Your task to perform on an android device: see tabs open on other devices in the chrome app Image 0: 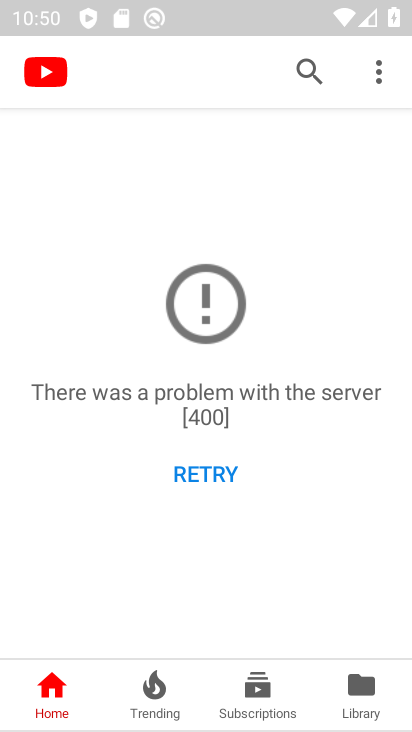
Step 0: press home button
Your task to perform on an android device: see tabs open on other devices in the chrome app Image 1: 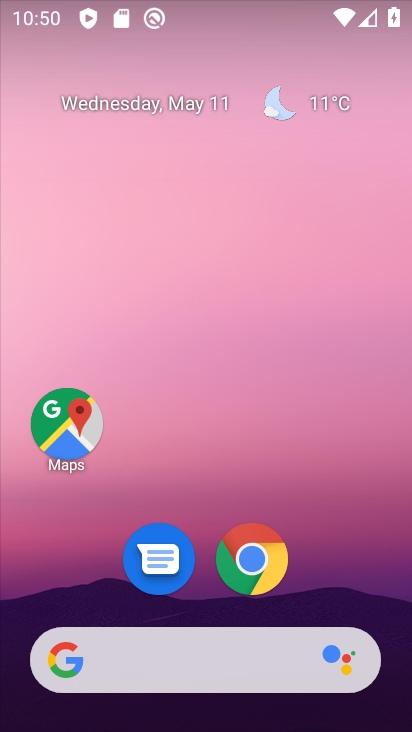
Step 1: click (265, 555)
Your task to perform on an android device: see tabs open on other devices in the chrome app Image 2: 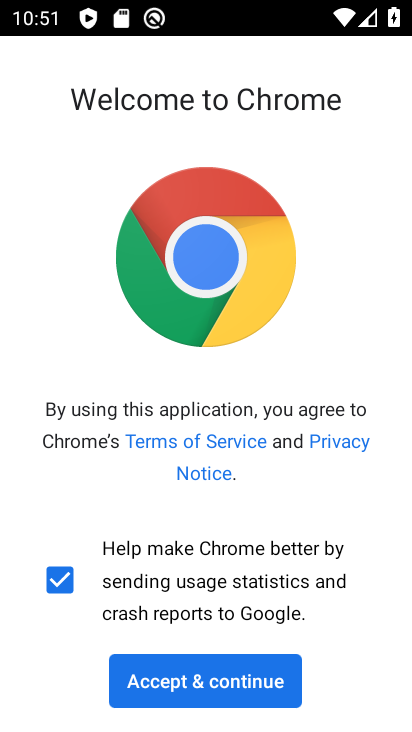
Step 2: click (278, 685)
Your task to perform on an android device: see tabs open on other devices in the chrome app Image 3: 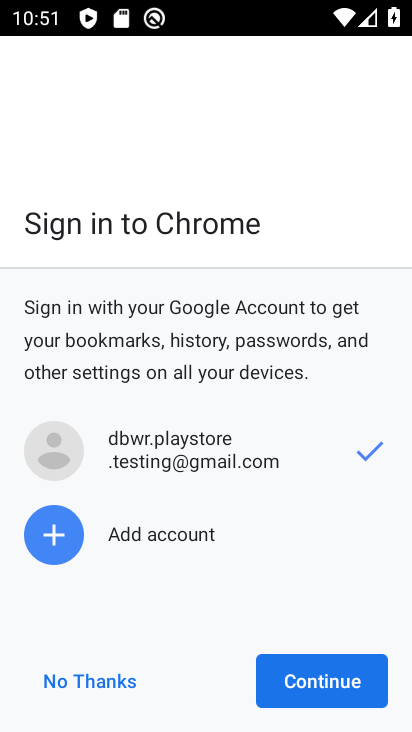
Step 3: click (278, 685)
Your task to perform on an android device: see tabs open on other devices in the chrome app Image 4: 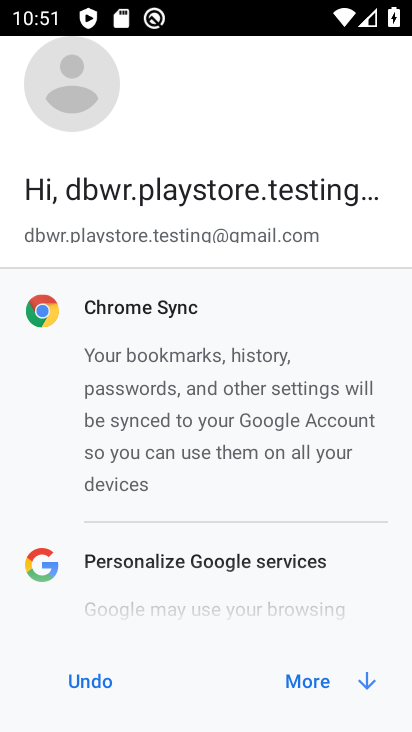
Step 4: click (308, 692)
Your task to perform on an android device: see tabs open on other devices in the chrome app Image 5: 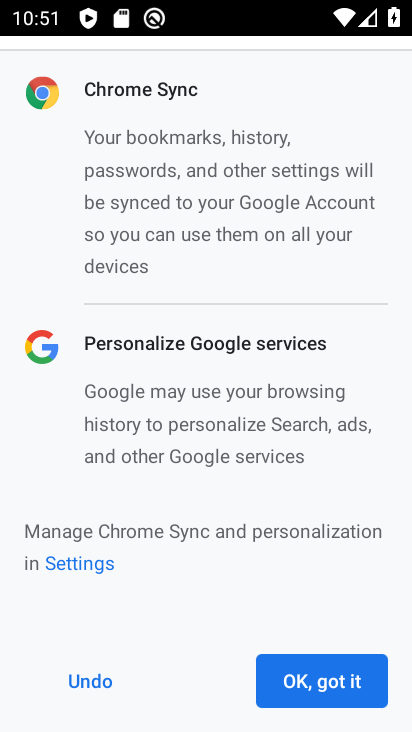
Step 5: click (308, 692)
Your task to perform on an android device: see tabs open on other devices in the chrome app Image 6: 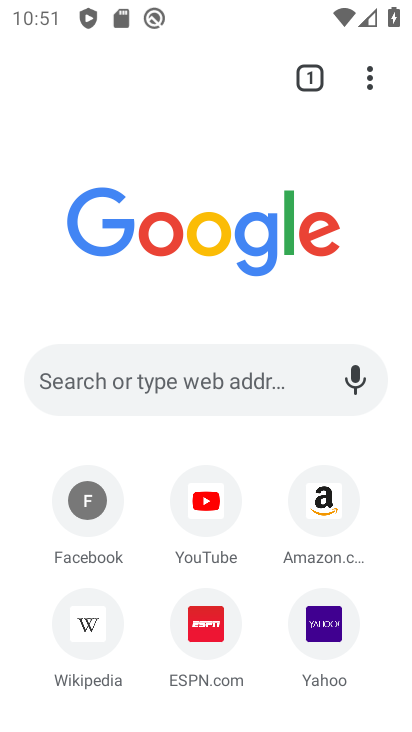
Step 6: click (378, 69)
Your task to perform on an android device: see tabs open on other devices in the chrome app Image 7: 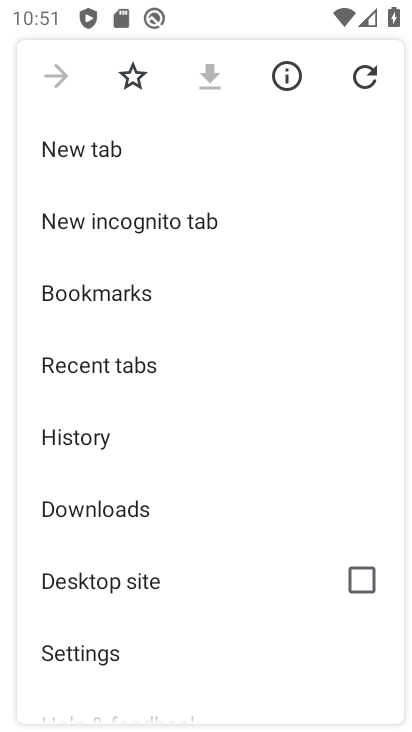
Step 7: click (130, 365)
Your task to perform on an android device: see tabs open on other devices in the chrome app Image 8: 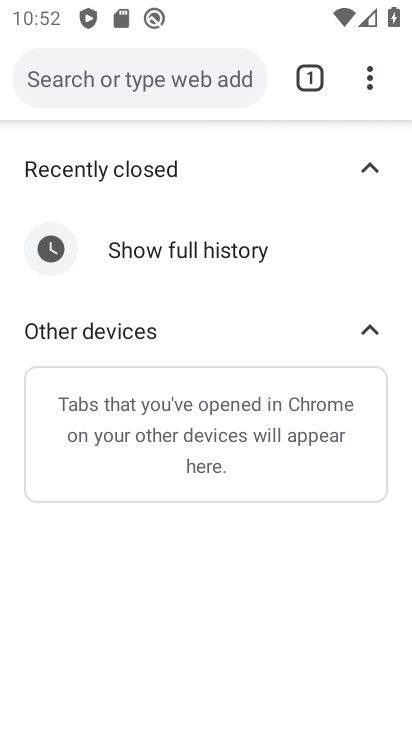
Step 8: task complete